Your task to perform on an android device: turn off picture-in-picture Image 0: 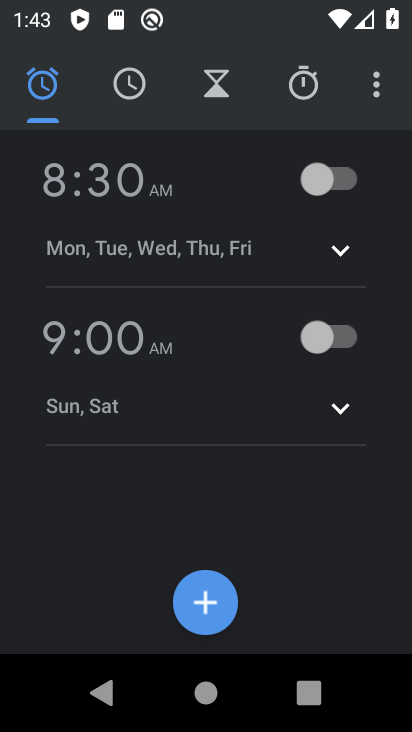
Step 0: press home button
Your task to perform on an android device: turn off picture-in-picture Image 1: 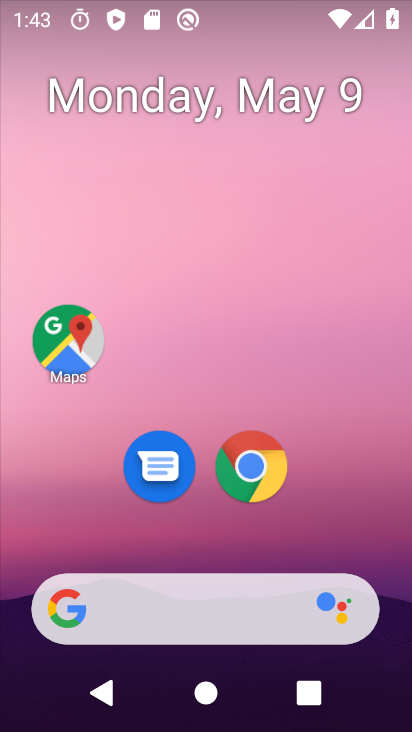
Step 1: drag from (338, 558) to (351, 380)
Your task to perform on an android device: turn off picture-in-picture Image 2: 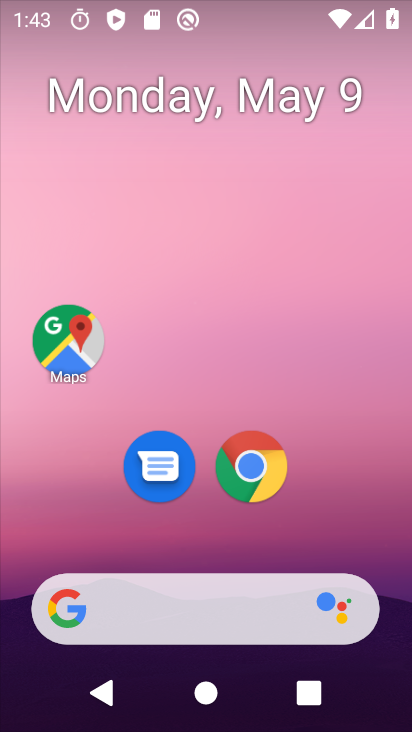
Step 2: drag from (265, 543) to (253, 60)
Your task to perform on an android device: turn off picture-in-picture Image 3: 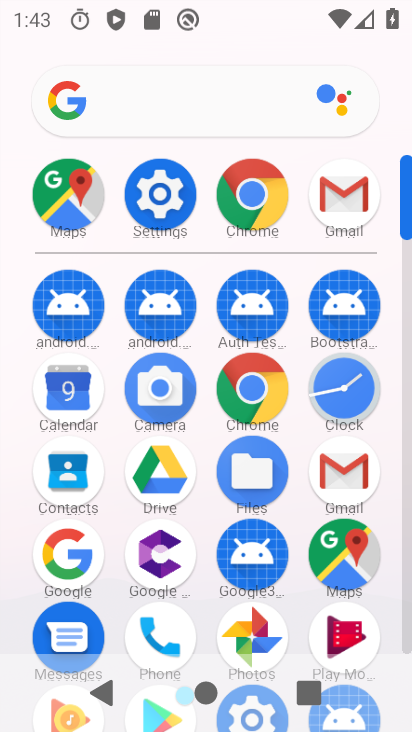
Step 3: click (161, 219)
Your task to perform on an android device: turn off picture-in-picture Image 4: 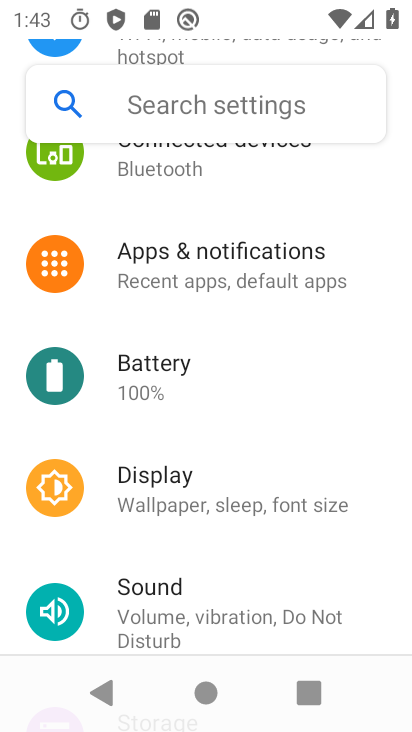
Step 4: click (227, 277)
Your task to perform on an android device: turn off picture-in-picture Image 5: 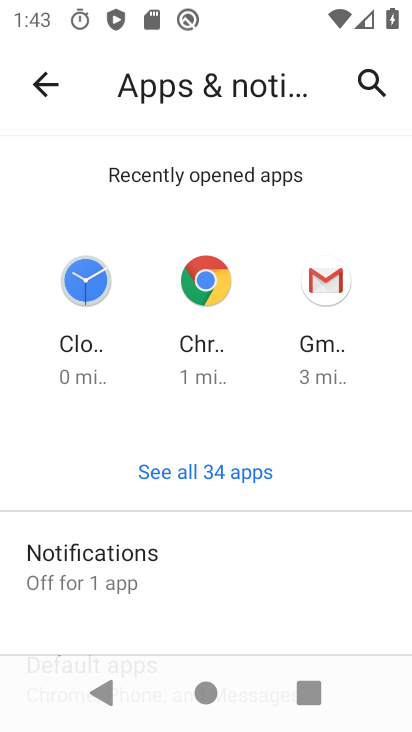
Step 5: drag from (84, 584) to (109, 314)
Your task to perform on an android device: turn off picture-in-picture Image 6: 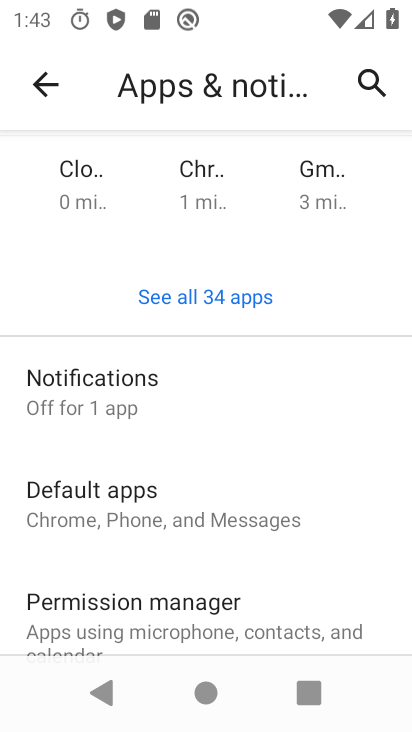
Step 6: drag from (137, 515) to (194, 164)
Your task to perform on an android device: turn off picture-in-picture Image 7: 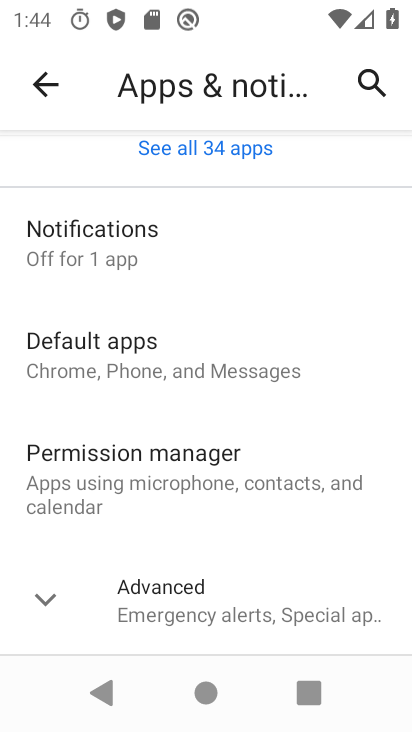
Step 7: click (144, 590)
Your task to perform on an android device: turn off picture-in-picture Image 8: 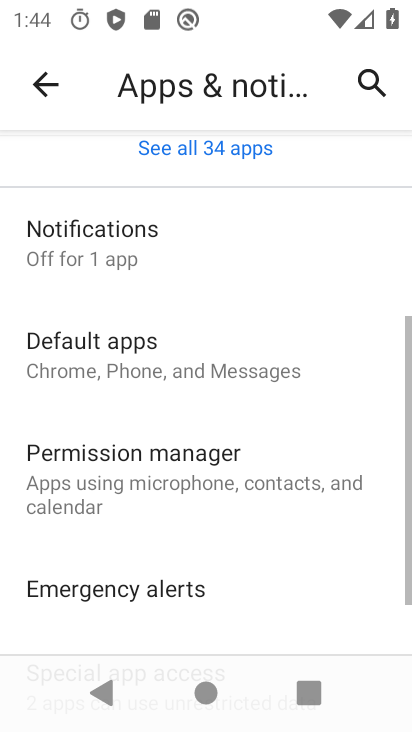
Step 8: drag from (144, 590) to (204, 72)
Your task to perform on an android device: turn off picture-in-picture Image 9: 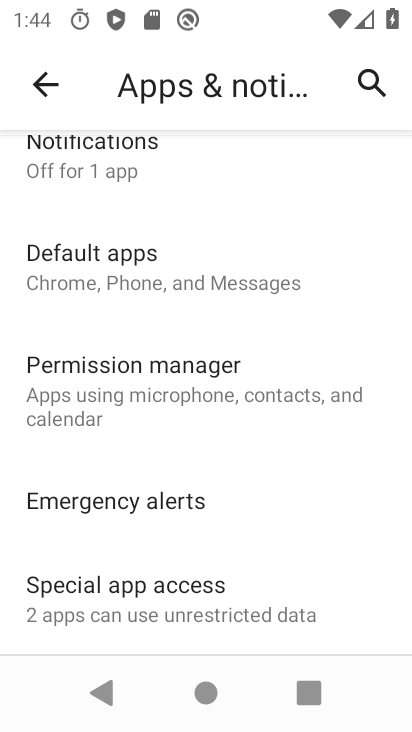
Step 9: drag from (155, 419) to (192, 247)
Your task to perform on an android device: turn off picture-in-picture Image 10: 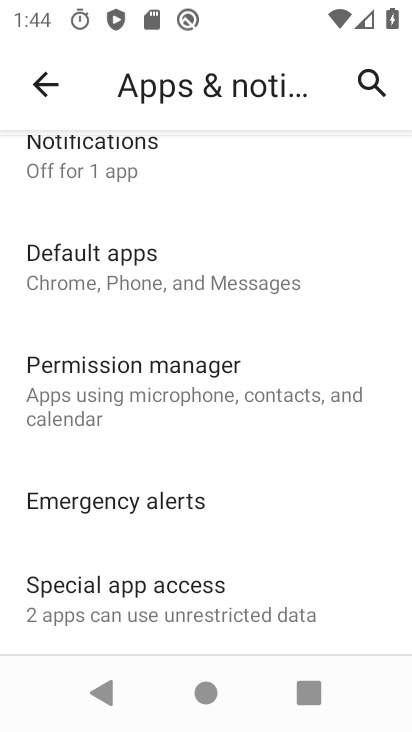
Step 10: click (126, 591)
Your task to perform on an android device: turn off picture-in-picture Image 11: 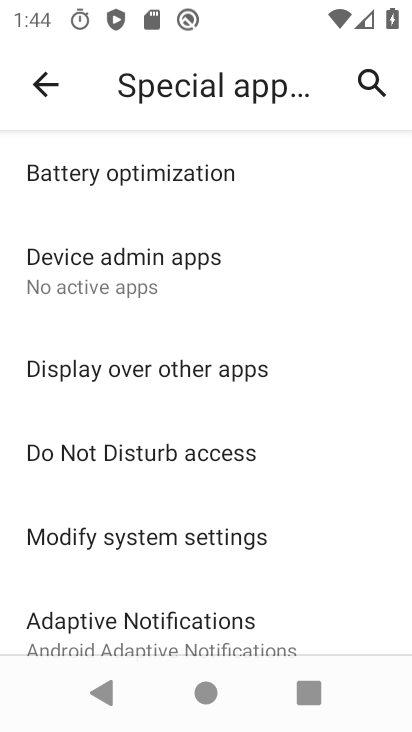
Step 11: drag from (187, 496) to (214, 276)
Your task to perform on an android device: turn off picture-in-picture Image 12: 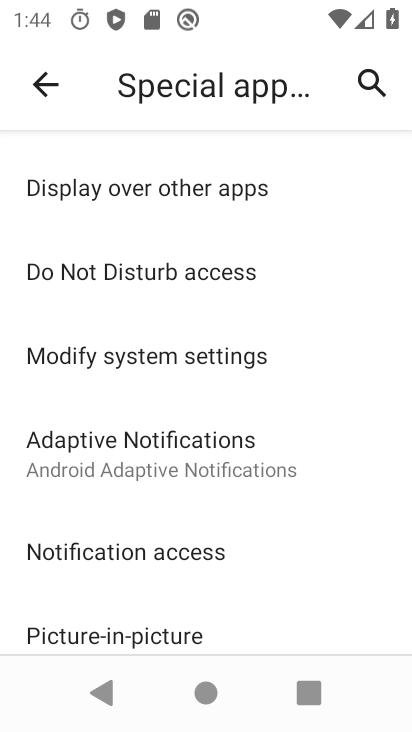
Step 12: click (128, 624)
Your task to perform on an android device: turn off picture-in-picture Image 13: 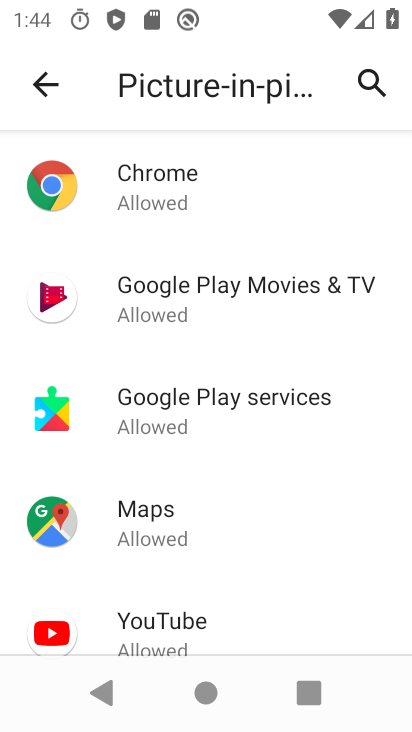
Step 13: click (294, 190)
Your task to perform on an android device: turn off picture-in-picture Image 14: 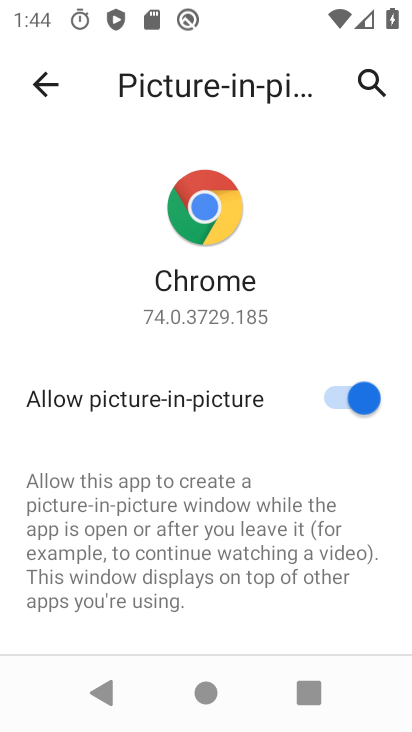
Step 14: click (333, 392)
Your task to perform on an android device: turn off picture-in-picture Image 15: 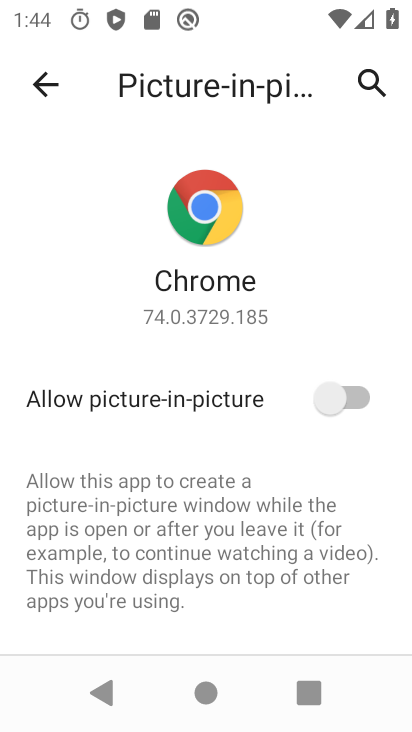
Step 15: task complete